Your task to perform on an android device: Search for pizza restaurants on Maps Image 0: 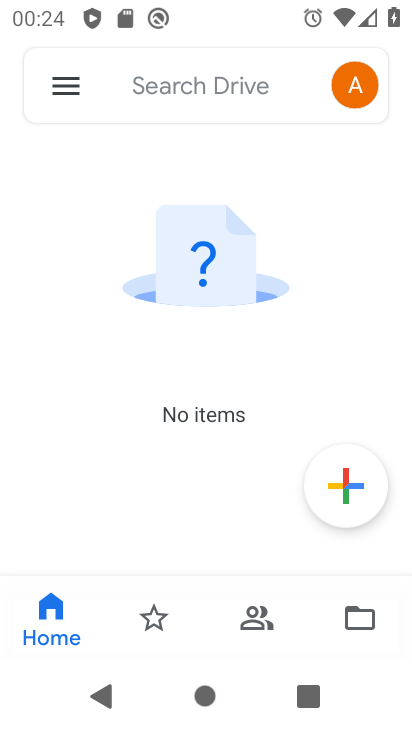
Step 0: press home button
Your task to perform on an android device: Search for pizza restaurants on Maps Image 1: 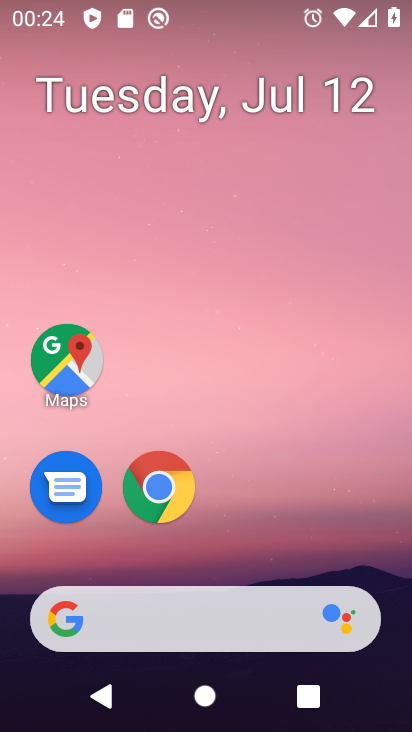
Step 1: drag from (329, 543) to (354, 129)
Your task to perform on an android device: Search for pizza restaurants on Maps Image 2: 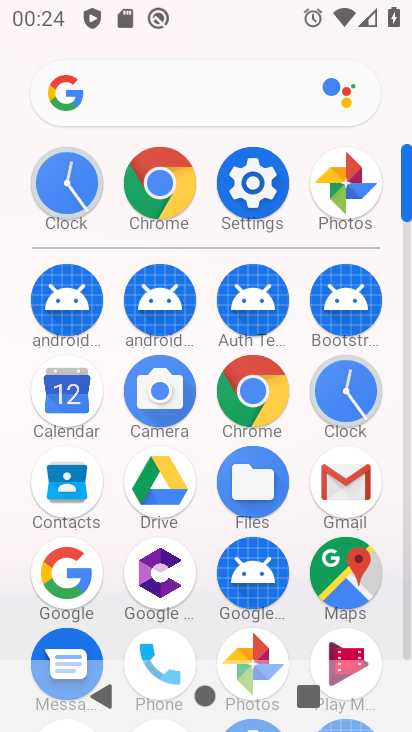
Step 2: click (344, 577)
Your task to perform on an android device: Search for pizza restaurants on Maps Image 3: 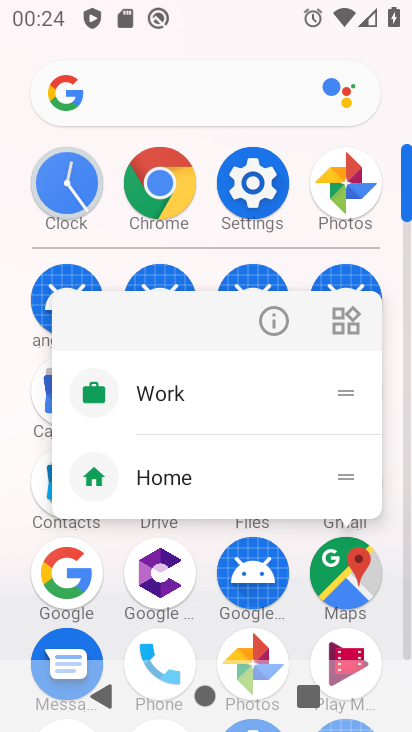
Step 3: click (337, 568)
Your task to perform on an android device: Search for pizza restaurants on Maps Image 4: 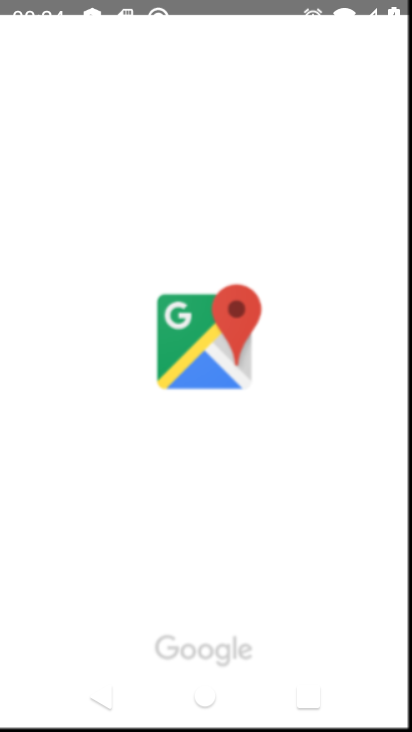
Step 4: task complete